Your task to perform on an android device: toggle show notifications on the lock screen Image 0: 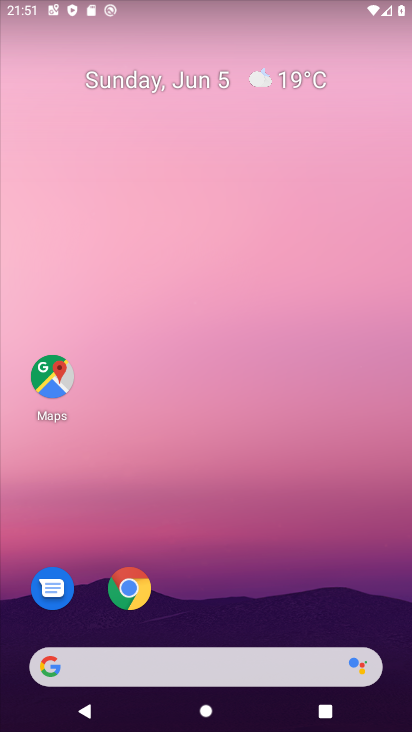
Step 0: drag from (345, 610) to (347, 222)
Your task to perform on an android device: toggle show notifications on the lock screen Image 1: 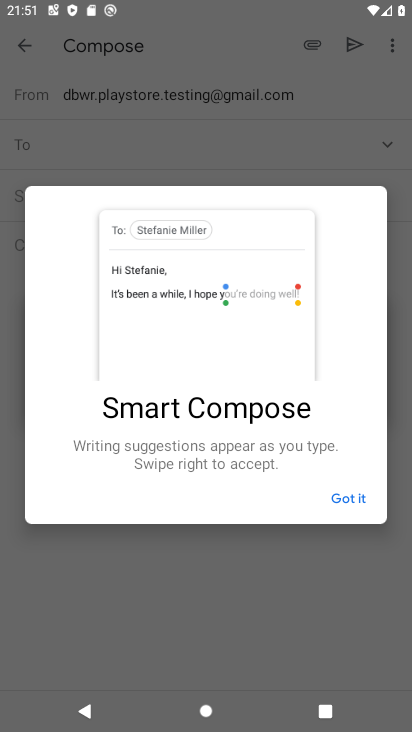
Step 1: press home button
Your task to perform on an android device: toggle show notifications on the lock screen Image 2: 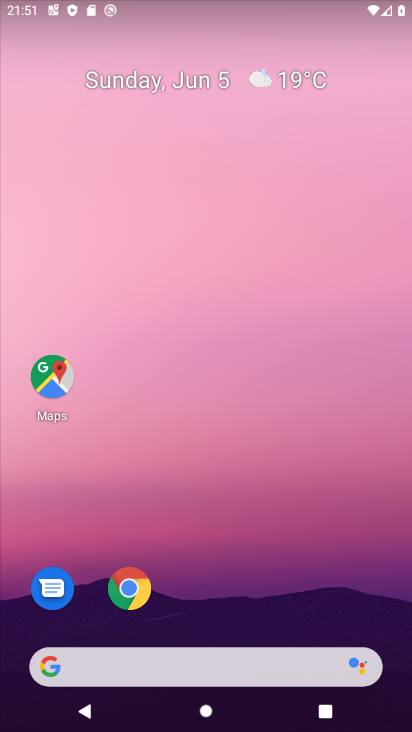
Step 2: drag from (330, 587) to (344, 153)
Your task to perform on an android device: toggle show notifications on the lock screen Image 3: 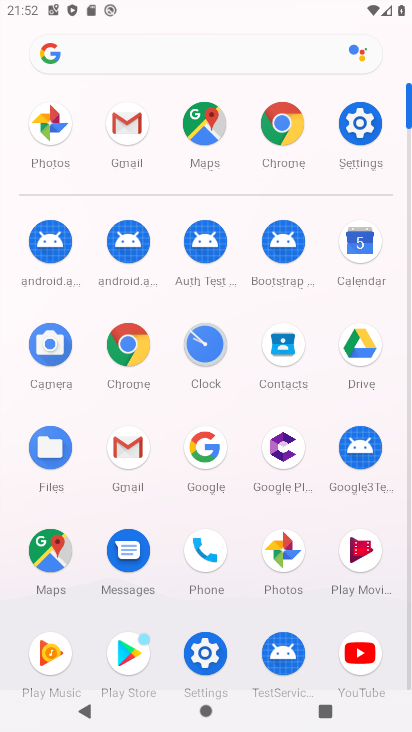
Step 3: click (198, 655)
Your task to perform on an android device: toggle show notifications on the lock screen Image 4: 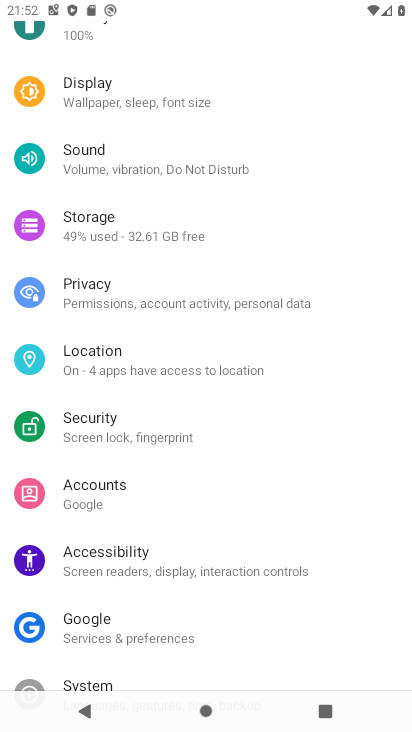
Step 4: drag from (343, 360) to (346, 444)
Your task to perform on an android device: toggle show notifications on the lock screen Image 5: 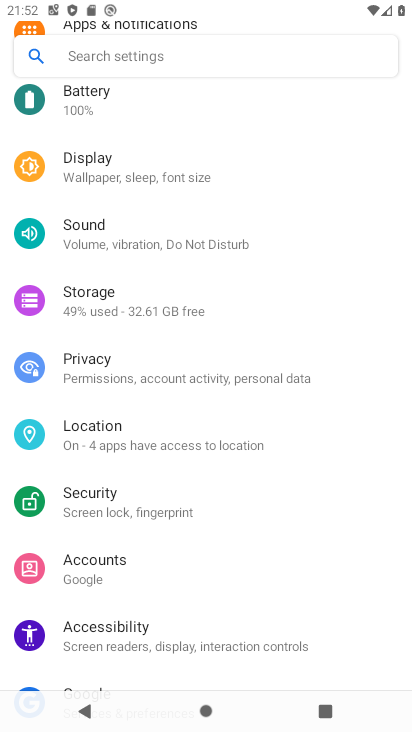
Step 5: drag from (339, 333) to (337, 486)
Your task to perform on an android device: toggle show notifications on the lock screen Image 6: 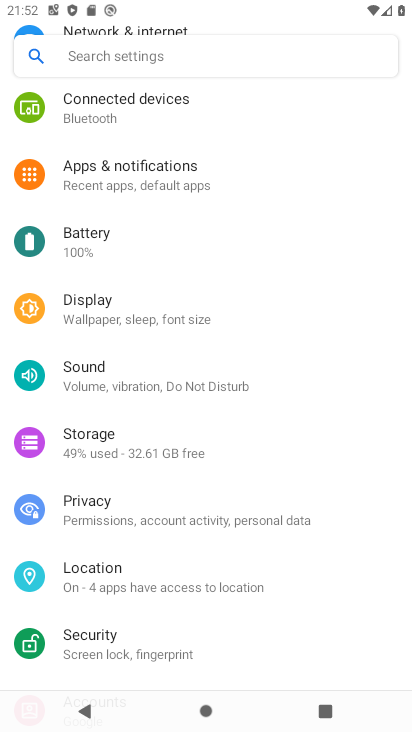
Step 6: drag from (340, 291) to (341, 511)
Your task to perform on an android device: toggle show notifications on the lock screen Image 7: 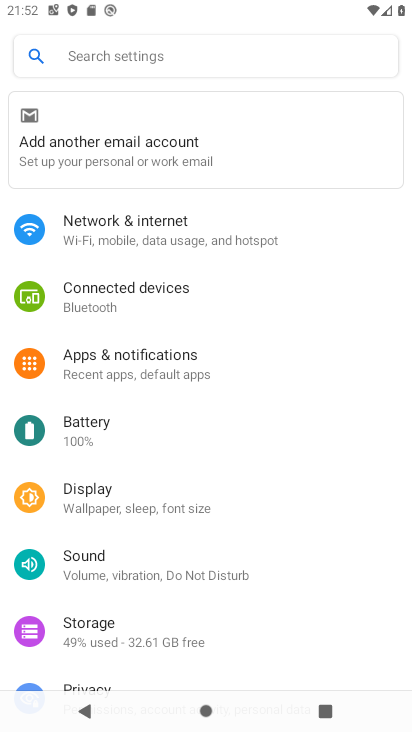
Step 7: drag from (341, 295) to (339, 417)
Your task to perform on an android device: toggle show notifications on the lock screen Image 8: 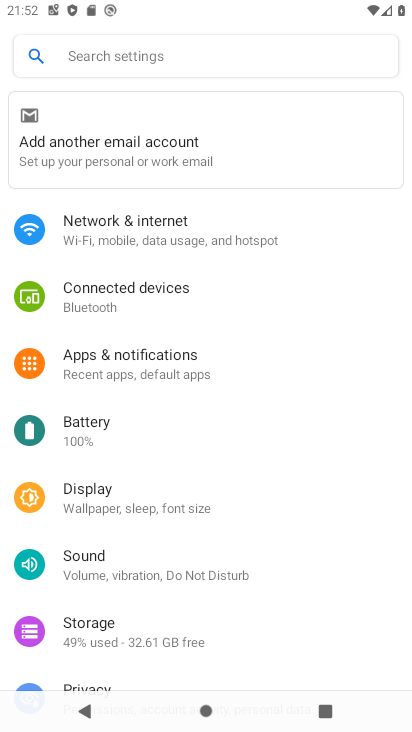
Step 8: click (211, 378)
Your task to perform on an android device: toggle show notifications on the lock screen Image 9: 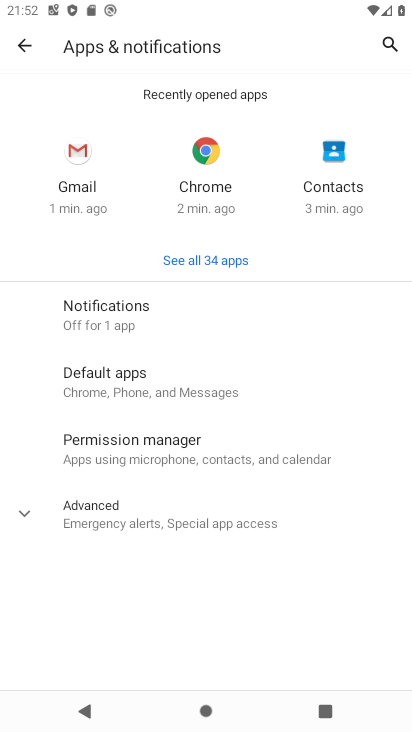
Step 9: click (163, 312)
Your task to perform on an android device: toggle show notifications on the lock screen Image 10: 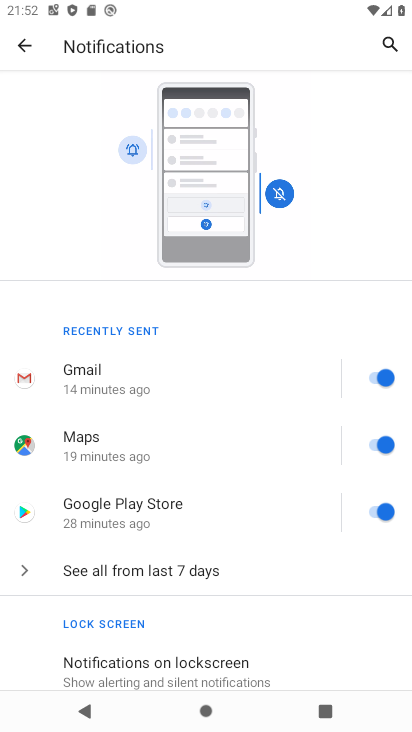
Step 10: drag from (286, 509) to (279, 409)
Your task to perform on an android device: toggle show notifications on the lock screen Image 11: 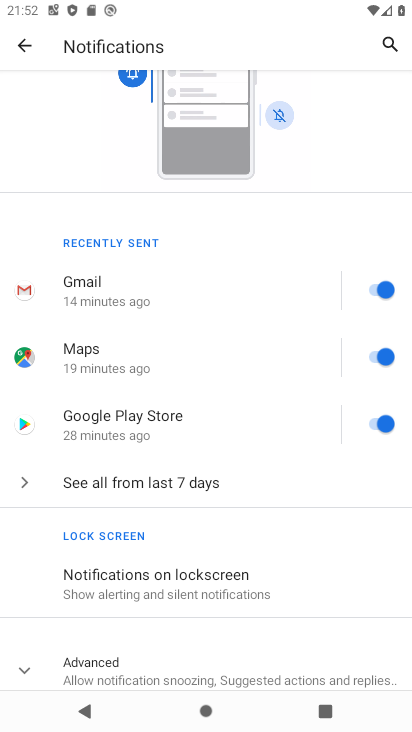
Step 11: drag from (287, 547) to (280, 404)
Your task to perform on an android device: toggle show notifications on the lock screen Image 12: 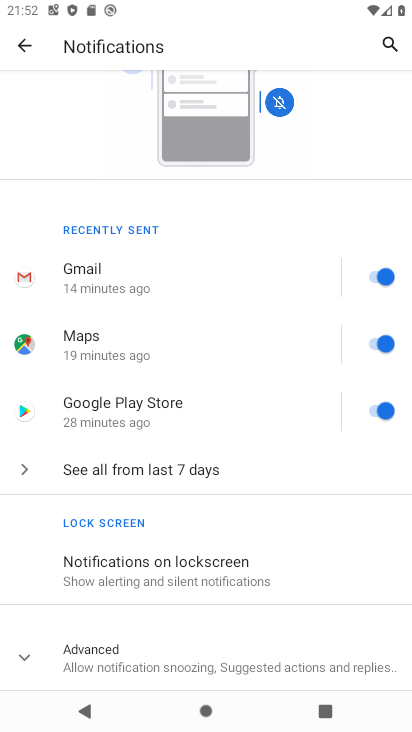
Step 12: click (259, 581)
Your task to perform on an android device: toggle show notifications on the lock screen Image 13: 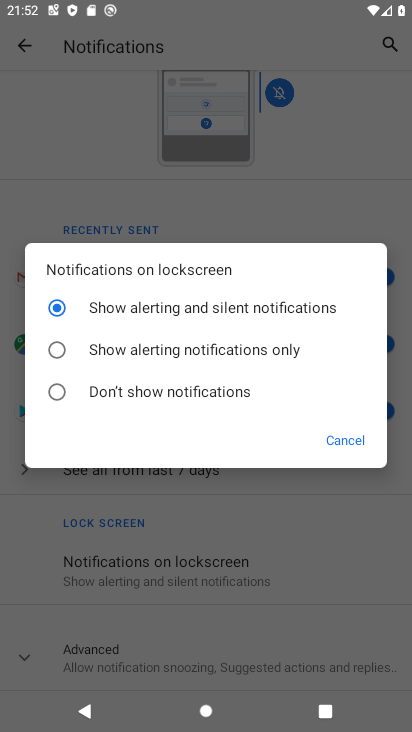
Step 13: click (172, 352)
Your task to perform on an android device: toggle show notifications on the lock screen Image 14: 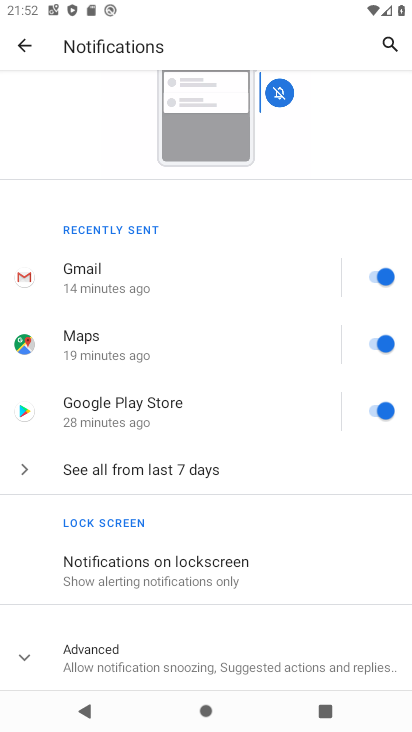
Step 14: task complete